Your task to perform on an android device: turn off sleep mode Image 0: 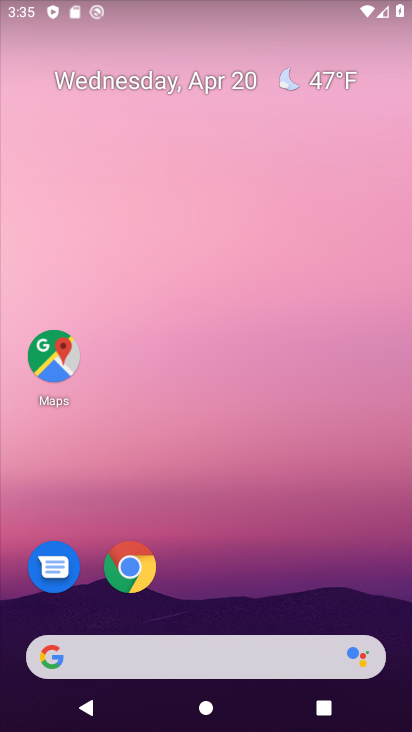
Step 0: drag from (162, 3) to (100, 602)
Your task to perform on an android device: turn off sleep mode Image 1: 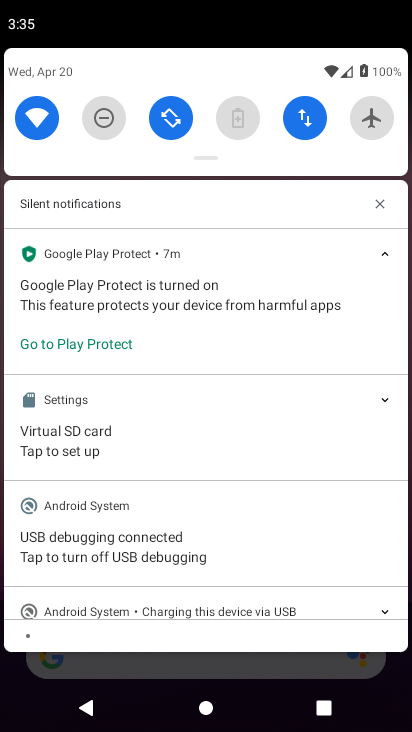
Step 1: drag from (162, 85) to (203, 544)
Your task to perform on an android device: turn off sleep mode Image 2: 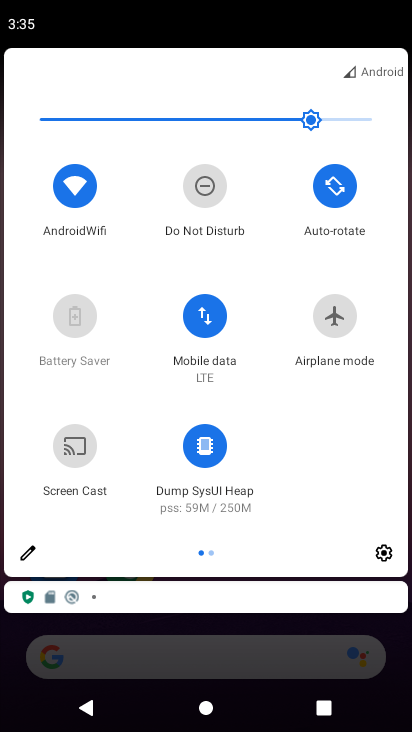
Step 2: click (388, 562)
Your task to perform on an android device: turn off sleep mode Image 3: 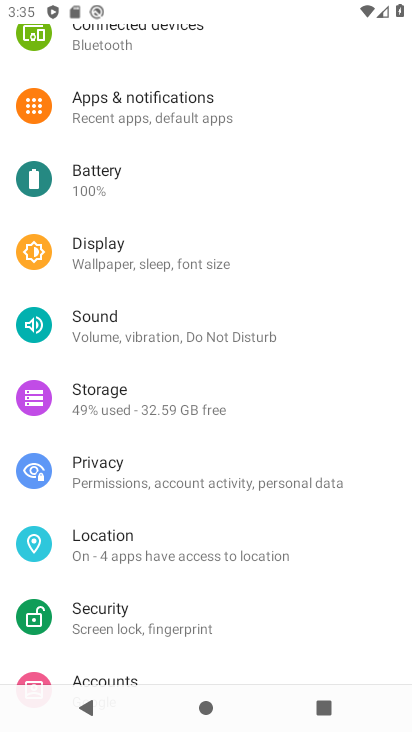
Step 3: task complete